Your task to perform on an android device: delete a single message in the gmail app Image 0: 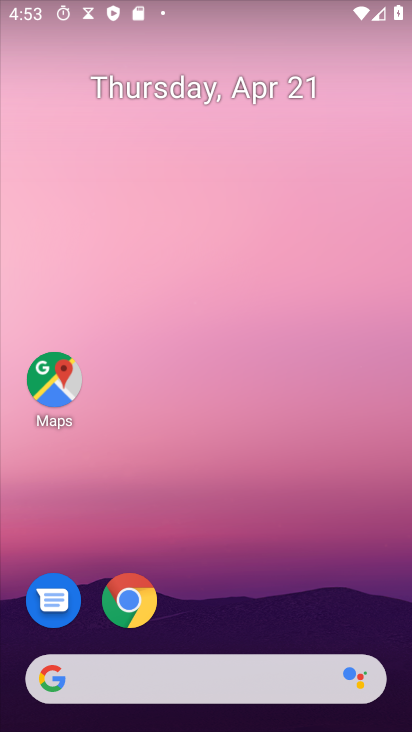
Step 0: drag from (248, 605) to (239, 115)
Your task to perform on an android device: delete a single message in the gmail app Image 1: 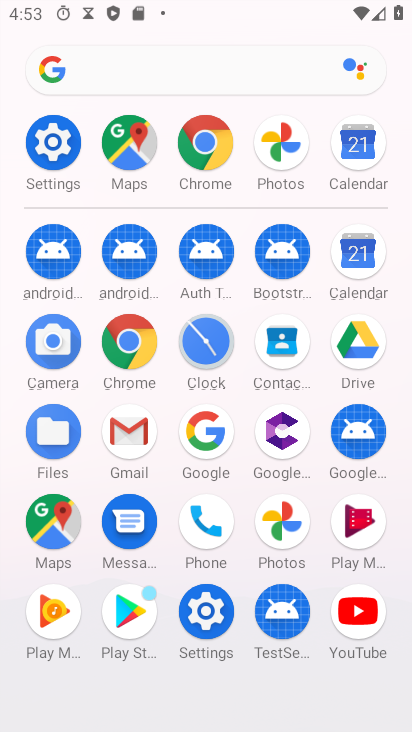
Step 1: click (54, 147)
Your task to perform on an android device: delete a single message in the gmail app Image 2: 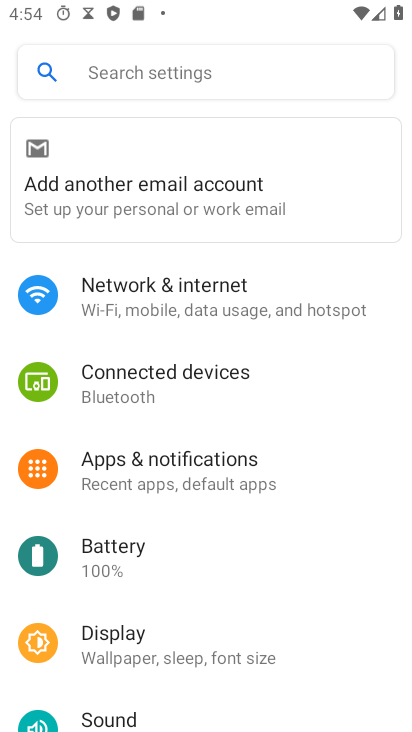
Step 2: press home button
Your task to perform on an android device: delete a single message in the gmail app Image 3: 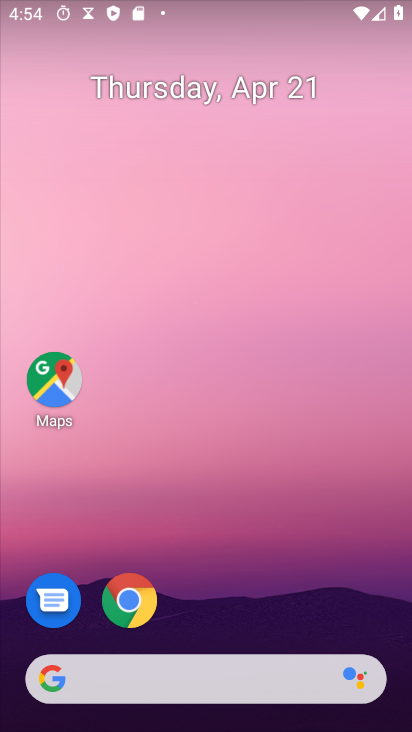
Step 3: drag from (180, 269) to (172, 97)
Your task to perform on an android device: delete a single message in the gmail app Image 4: 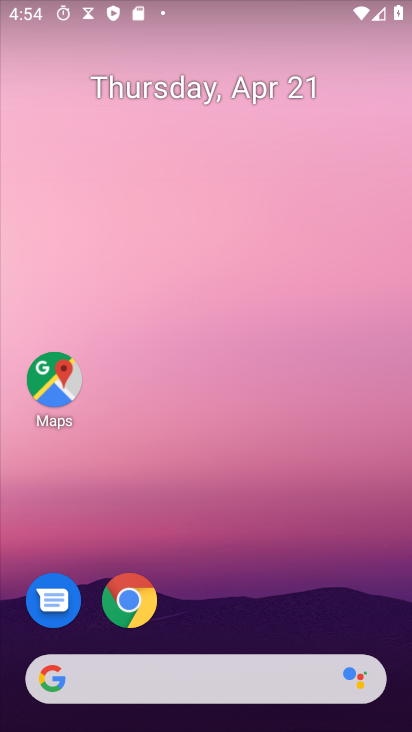
Step 4: drag from (213, 549) to (214, 51)
Your task to perform on an android device: delete a single message in the gmail app Image 5: 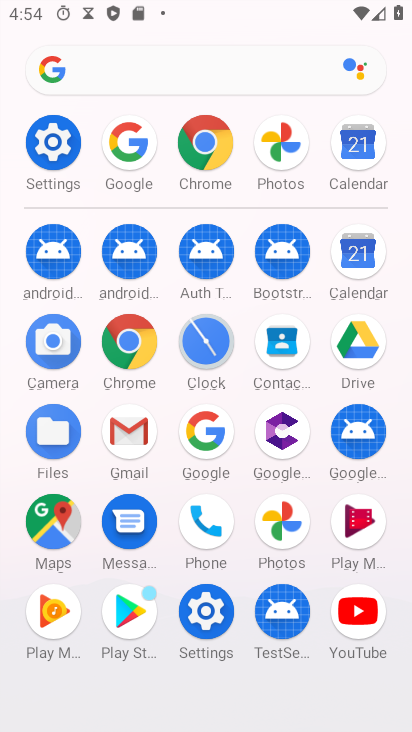
Step 5: click (132, 428)
Your task to perform on an android device: delete a single message in the gmail app Image 6: 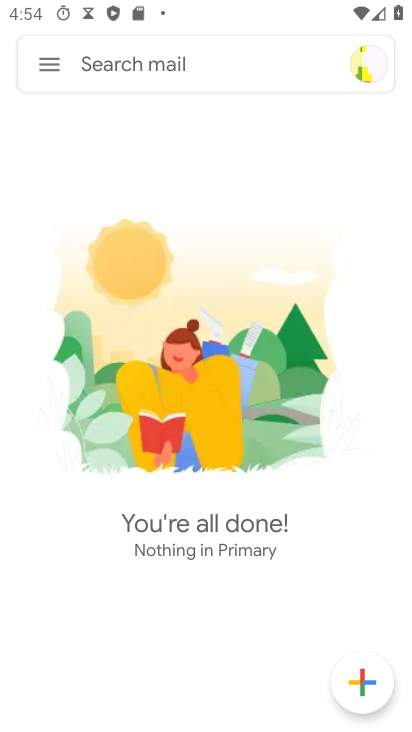
Step 6: click (49, 65)
Your task to perform on an android device: delete a single message in the gmail app Image 7: 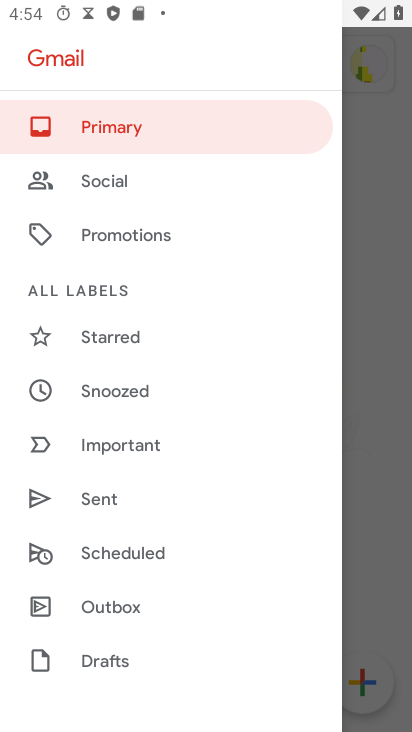
Step 7: drag from (164, 545) to (174, 394)
Your task to perform on an android device: delete a single message in the gmail app Image 8: 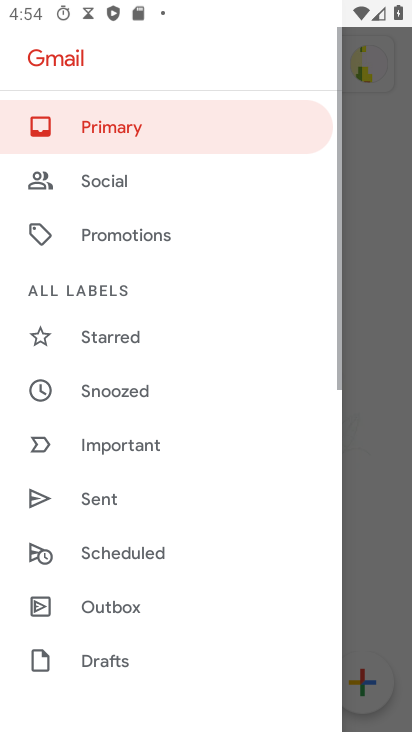
Step 8: drag from (188, 583) to (223, 398)
Your task to perform on an android device: delete a single message in the gmail app Image 9: 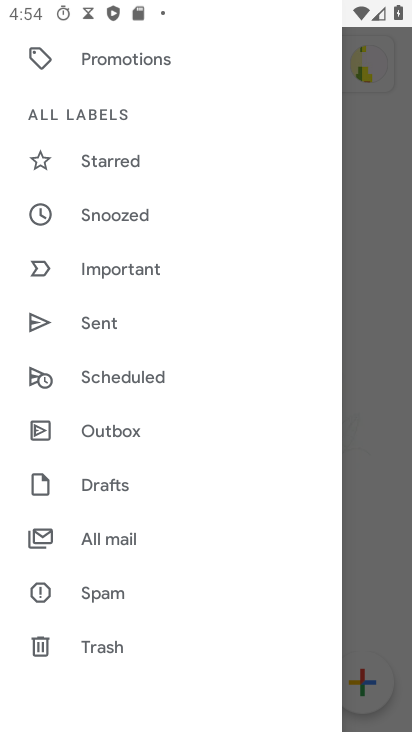
Step 9: click (127, 530)
Your task to perform on an android device: delete a single message in the gmail app Image 10: 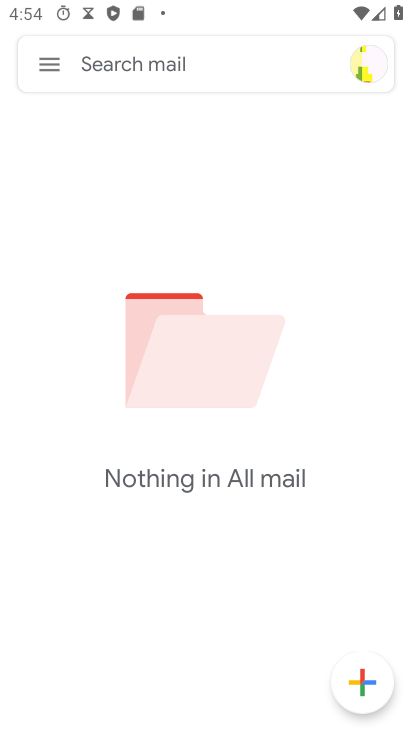
Step 10: task complete